Your task to perform on an android device: Go to Android settings Image 0: 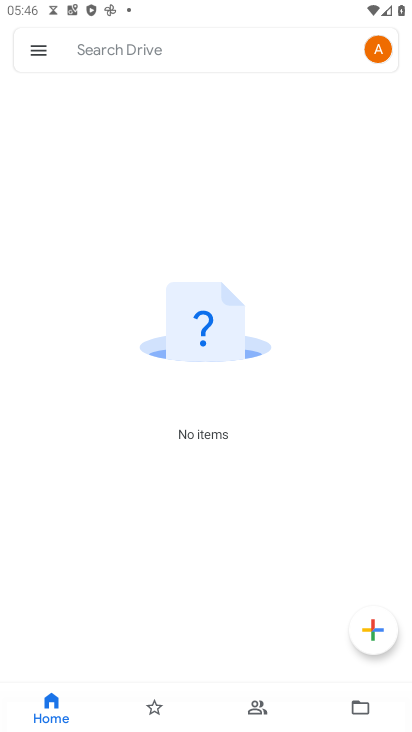
Step 0: press home button
Your task to perform on an android device: Go to Android settings Image 1: 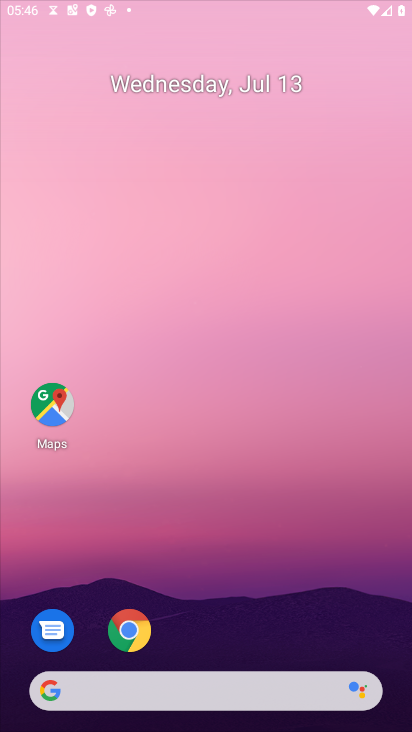
Step 1: drag from (298, 648) to (259, 31)
Your task to perform on an android device: Go to Android settings Image 2: 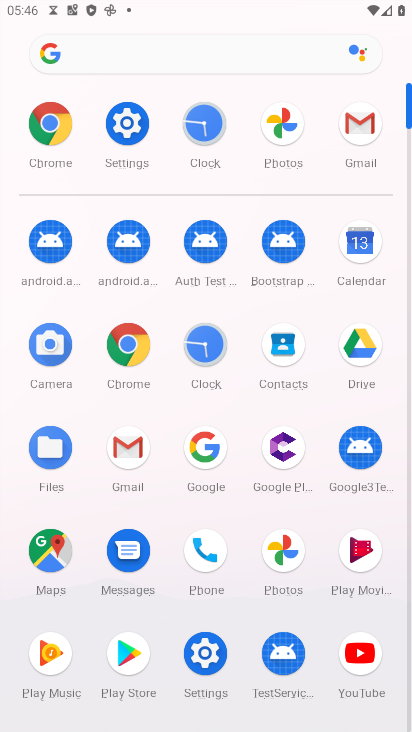
Step 2: click (107, 113)
Your task to perform on an android device: Go to Android settings Image 3: 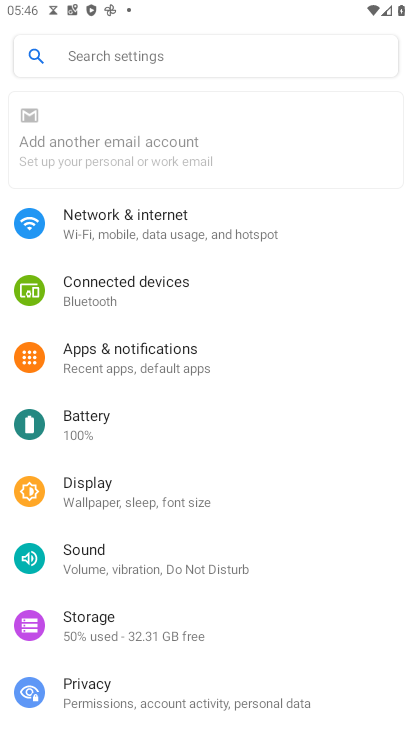
Step 3: drag from (301, 679) to (275, 68)
Your task to perform on an android device: Go to Android settings Image 4: 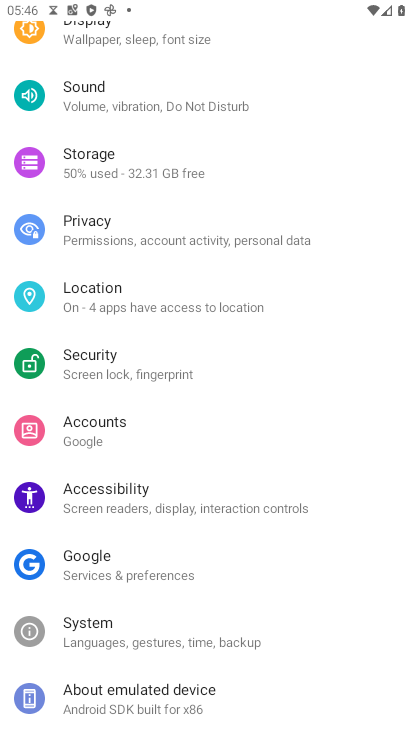
Step 4: click (241, 703)
Your task to perform on an android device: Go to Android settings Image 5: 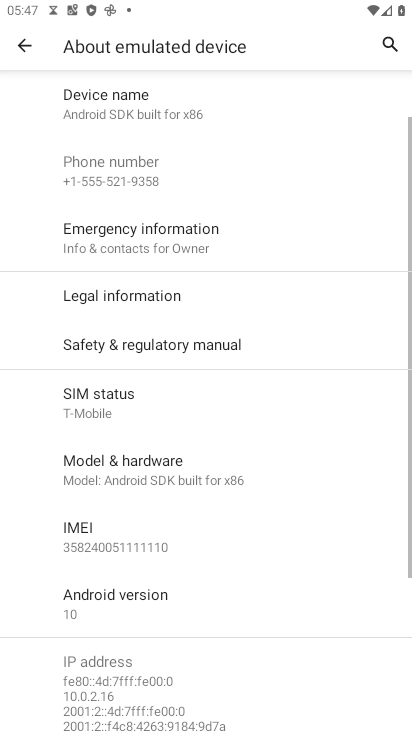
Step 5: click (147, 605)
Your task to perform on an android device: Go to Android settings Image 6: 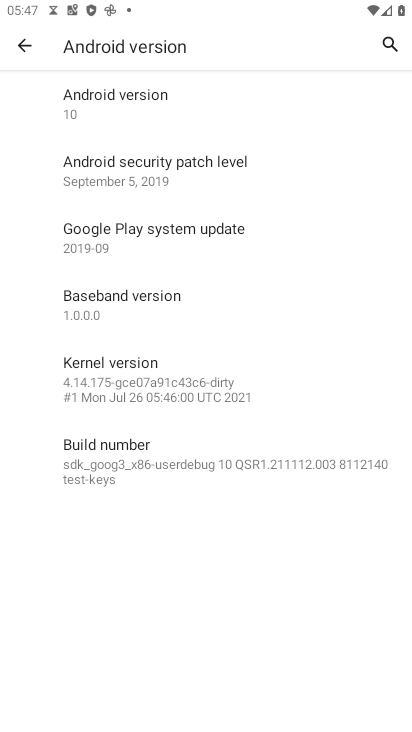
Step 6: task complete